Your task to perform on an android device: Open Chrome and go to settings Image 0: 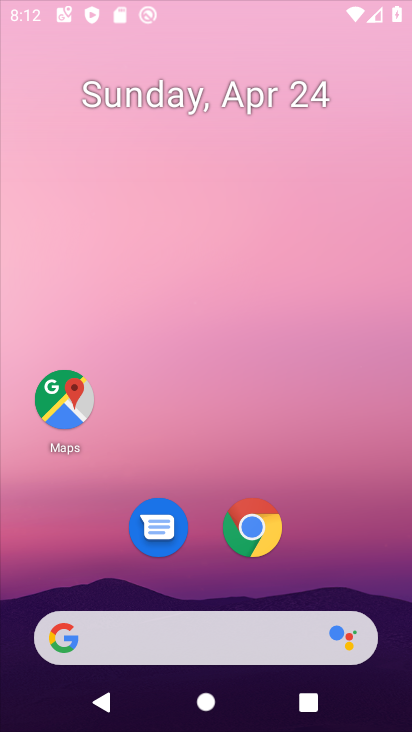
Step 0: drag from (395, 624) to (322, 102)
Your task to perform on an android device: Open Chrome and go to settings Image 1: 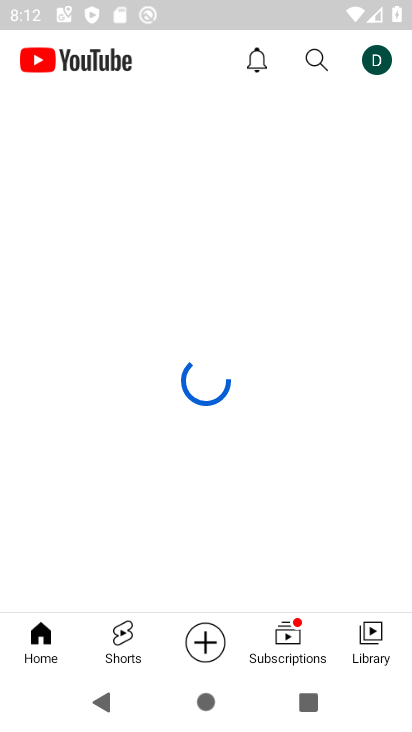
Step 1: press home button
Your task to perform on an android device: Open Chrome and go to settings Image 2: 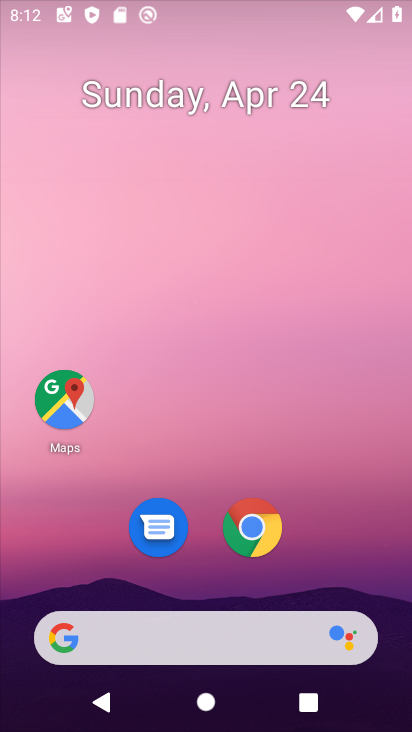
Step 2: drag from (381, 615) to (297, 53)
Your task to perform on an android device: Open Chrome and go to settings Image 3: 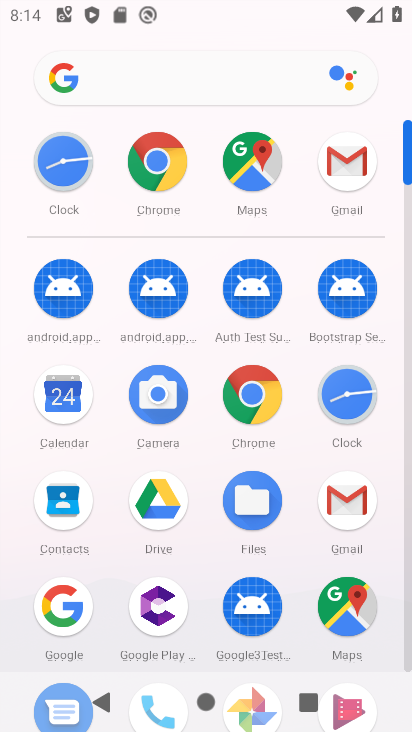
Step 3: click (224, 398)
Your task to perform on an android device: Open Chrome and go to settings Image 4: 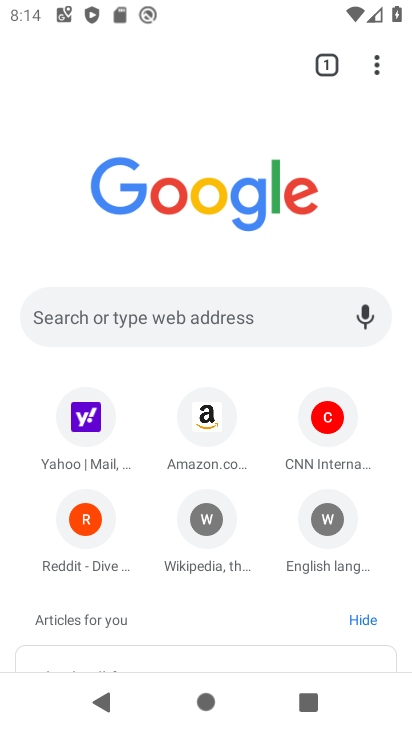
Step 4: click (379, 54)
Your task to perform on an android device: Open Chrome and go to settings Image 5: 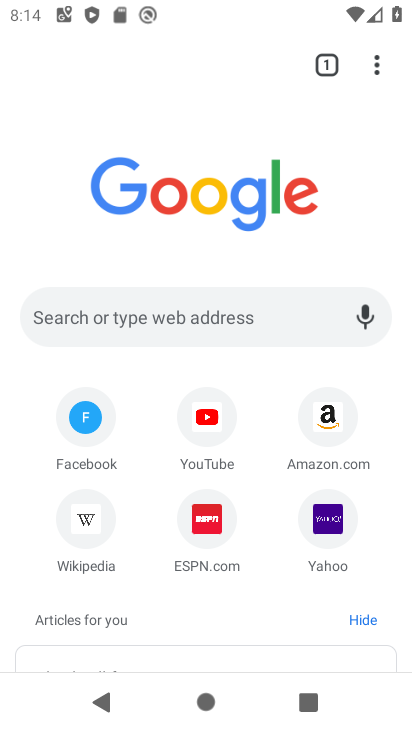
Step 5: click (374, 64)
Your task to perform on an android device: Open Chrome and go to settings Image 6: 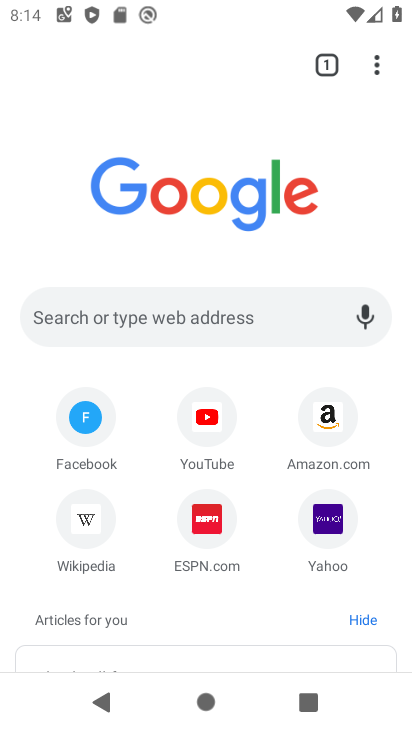
Step 6: click (378, 57)
Your task to perform on an android device: Open Chrome and go to settings Image 7: 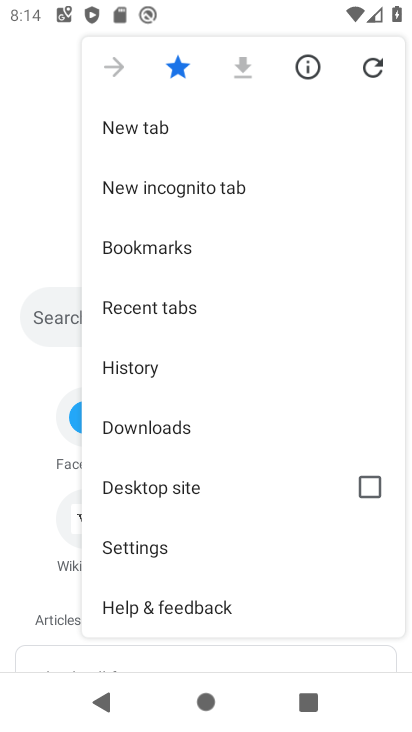
Step 7: click (183, 540)
Your task to perform on an android device: Open Chrome and go to settings Image 8: 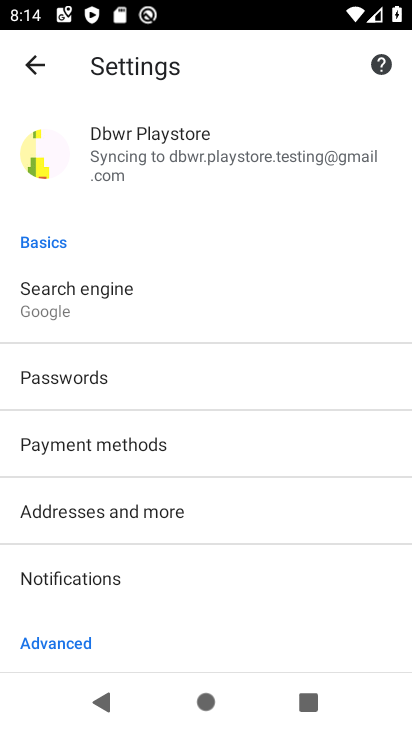
Step 8: task complete